Your task to perform on an android device: turn off sleep mode Image 0: 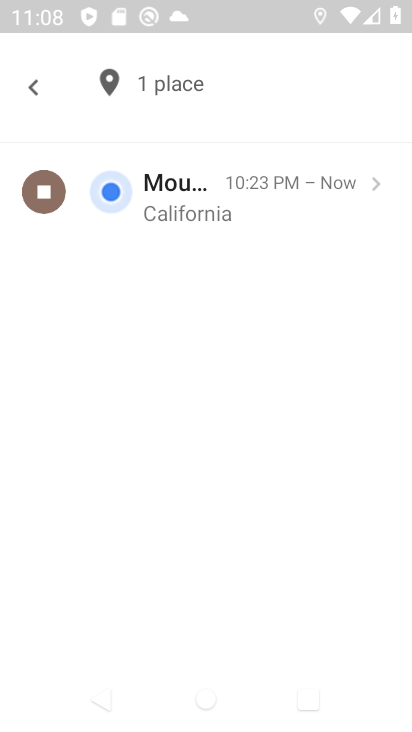
Step 0: press home button
Your task to perform on an android device: turn off sleep mode Image 1: 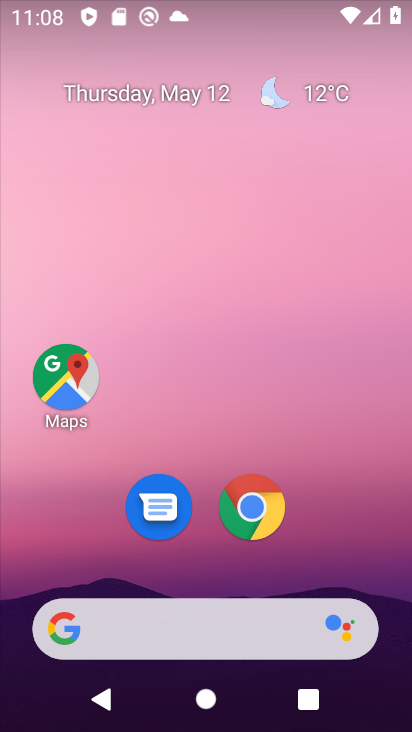
Step 1: drag from (244, 552) to (310, 0)
Your task to perform on an android device: turn off sleep mode Image 2: 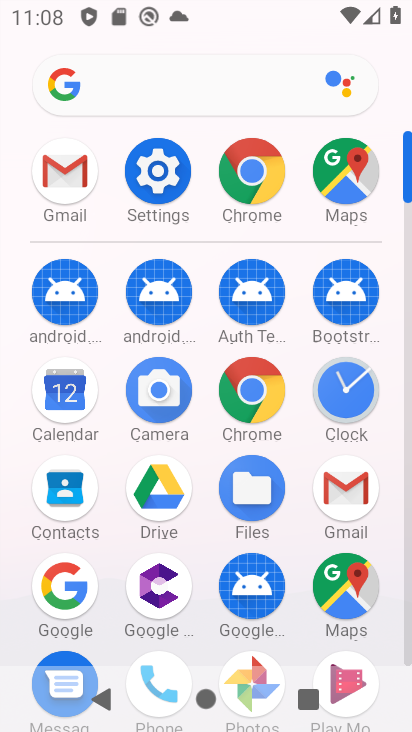
Step 2: click (186, 180)
Your task to perform on an android device: turn off sleep mode Image 3: 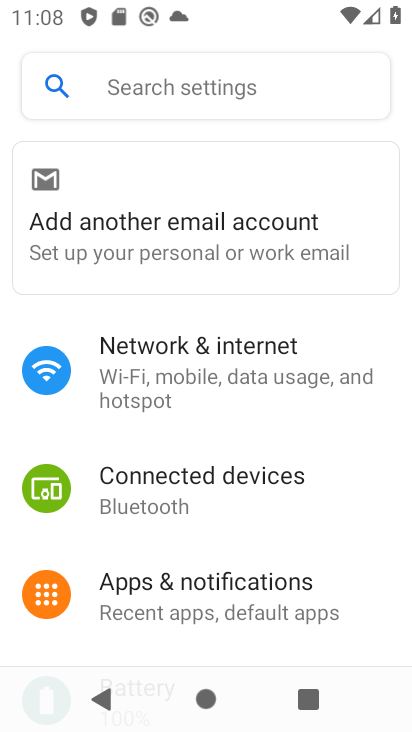
Step 3: click (215, 95)
Your task to perform on an android device: turn off sleep mode Image 4: 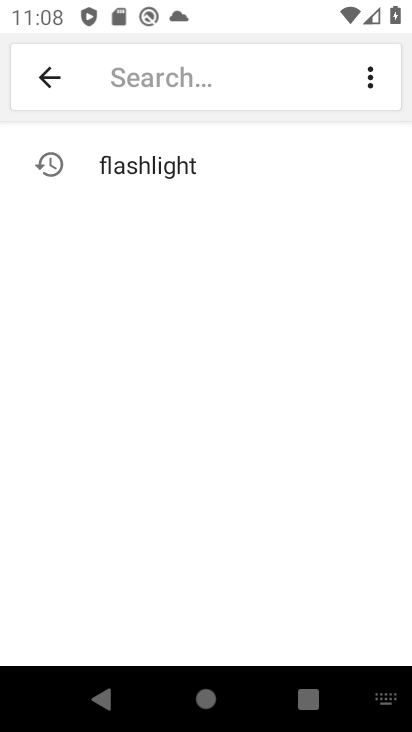
Step 4: type "sleep mode"
Your task to perform on an android device: turn off sleep mode Image 5: 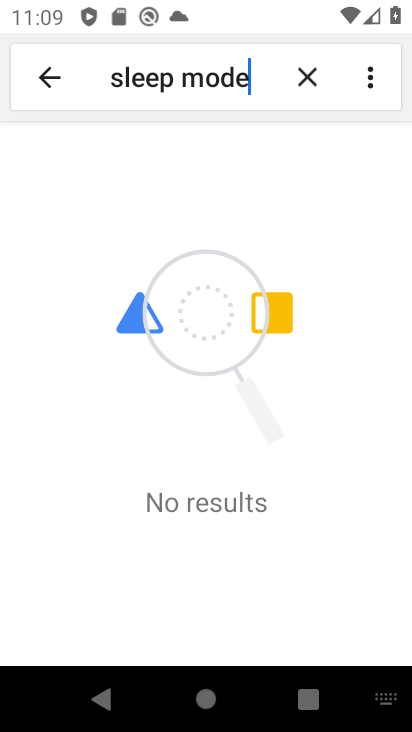
Step 5: task complete